Your task to perform on an android device: manage bookmarks in the chrome app Image 0: 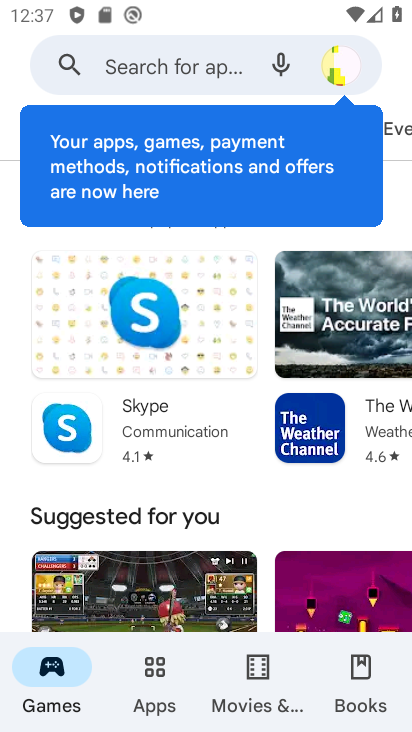
Step 0: press home button
Your task to perform on an android device: manage bookmarks in the chrome app Image 1: 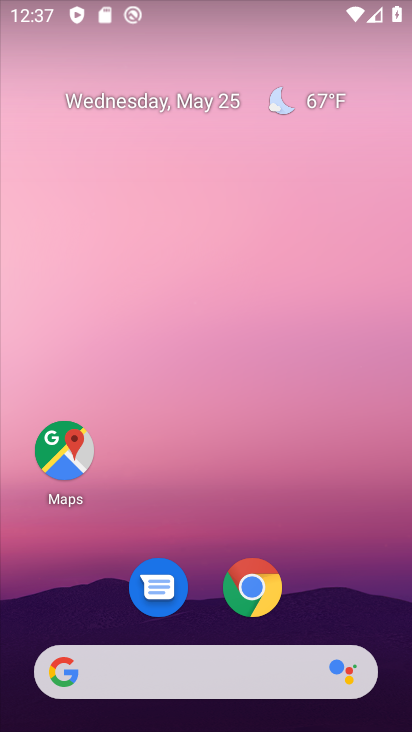
Step 1: click (251, 591)
Your task to perform on an android device: manage bookmarks in the chrome app Image 2: 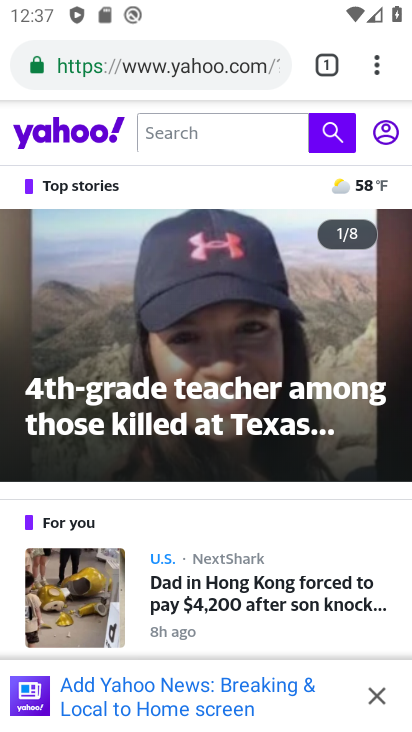
Step 2: click (379, 71)
Your task to perform on an android device: manage bookmarks in the chrome app Image 3: 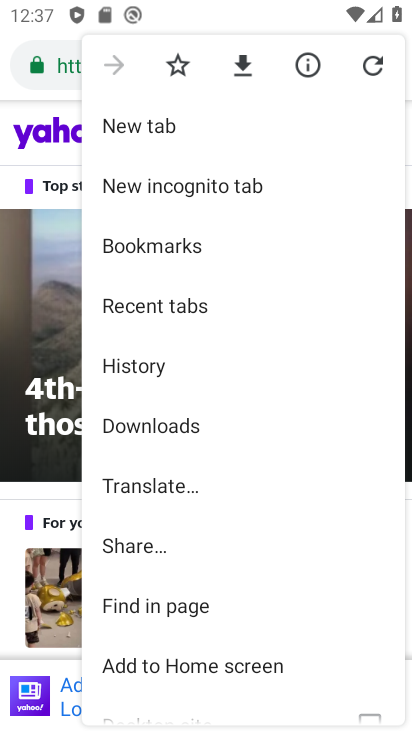
Step 3: click (153, 245)
Your task to perform on an android device: manage bookmarks in the chrome app Image 4: 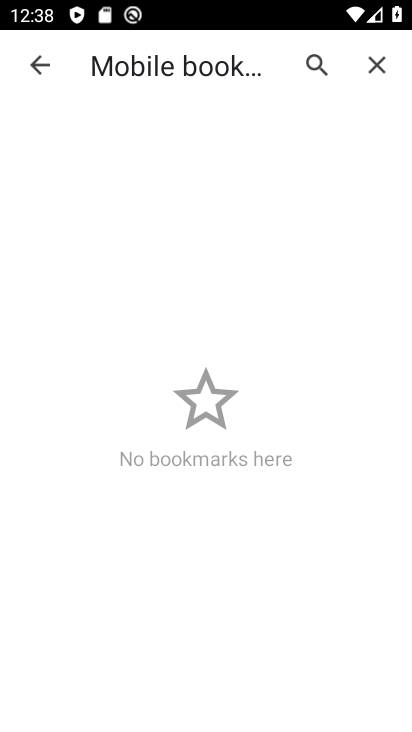
Step 4: task complete